Your task to perform on an android device: Search for Mexican restaurants on Maps Image 0: 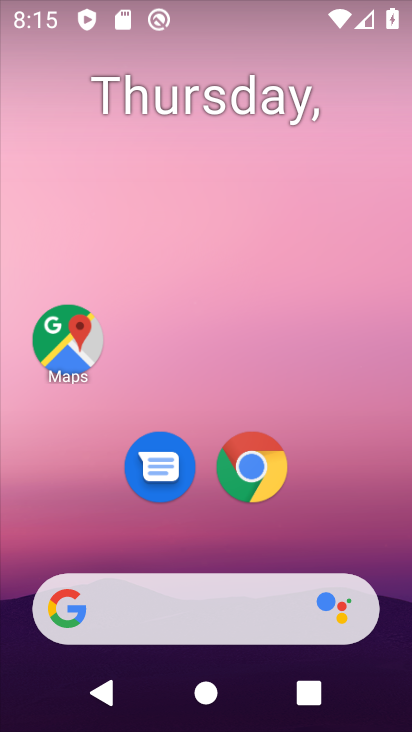
Step 0: click (350, 297)
Your task to perform on an android device: Search for Mexican restaurants on Maps Image 1: 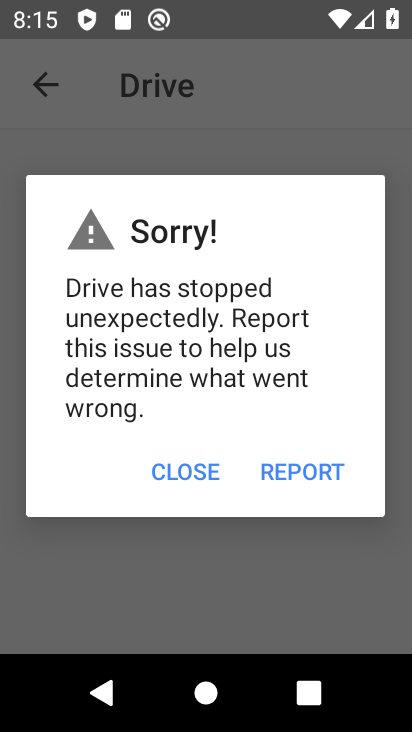
Step 1: press home button
Your task to perform on an android device: Search for Mexican restaurants on Maps Image 2: 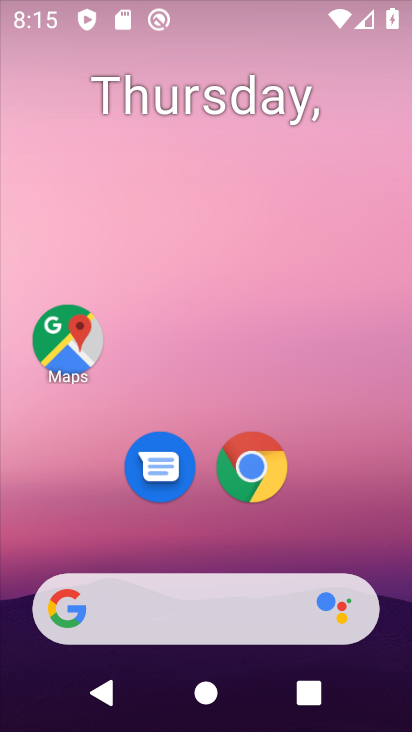
Step 2: drag from (282, 586) to (289, 217)
Your task to perform on an android device: Search for Mexican restaurants on Maps Image 3: 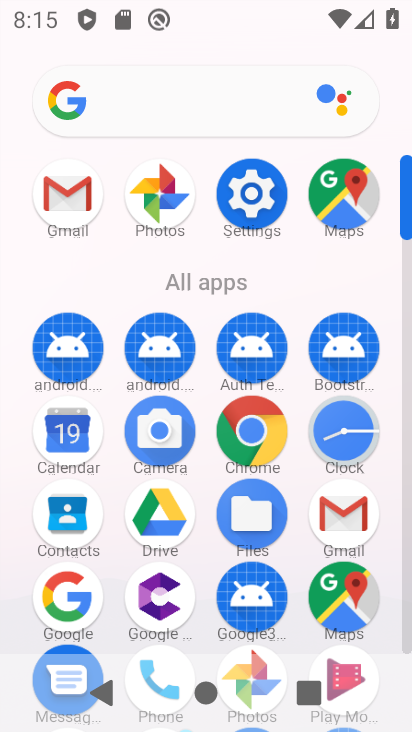
Step 3: click (343, 197)
Your task to perform on an android device: Search for Mexican restaurants on Maps Image 4: 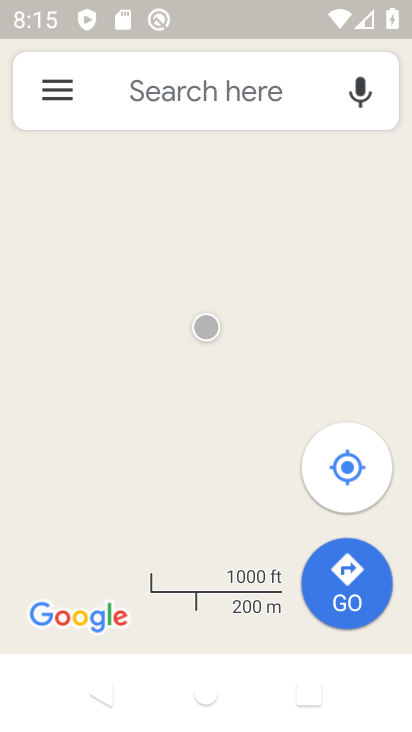
Step 4: click (241, 94)
Your task to perform on an android device: Search for Mexican restaurants on Maps Image 5: 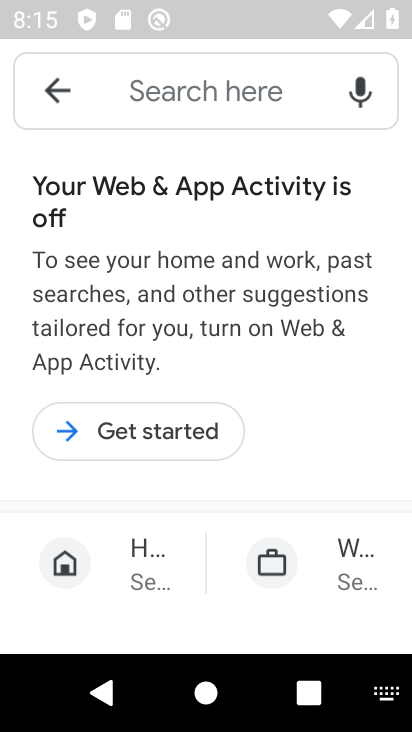
Step 5: type " Mexican restaurants "
Your task to perform on an android device: Search for Mexican restaurants on Maps Image 6: 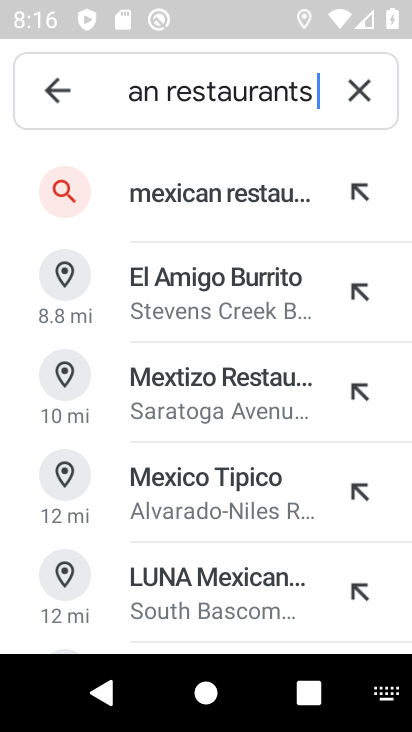
Step 6: click (173, 168)
Your task to perform on an android device: Search for Mexican restaurants on Maps Image 7: 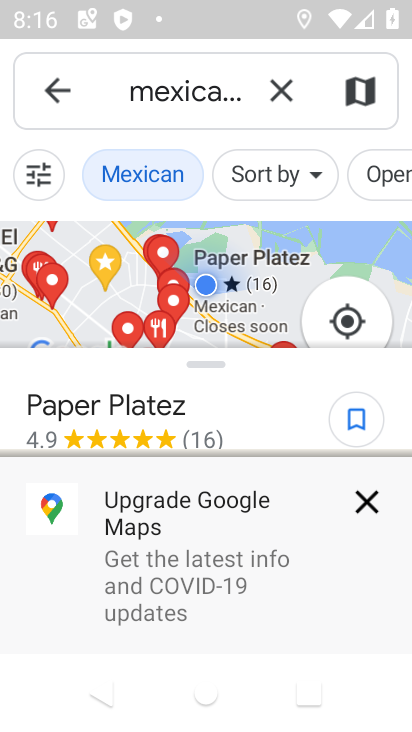
Step 7: click (363, 503)
Your task to perform on an android device: Search for Mexican restaurants on Maps Image 8: 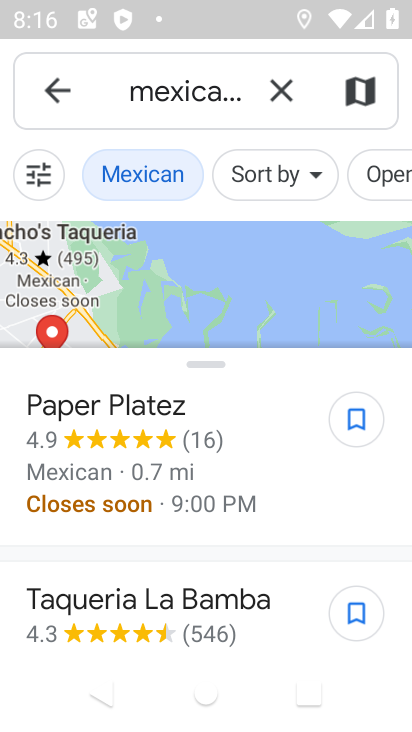
Step 8: task complete